Your task to perform on an android device: toggle airplane mode Image 0: 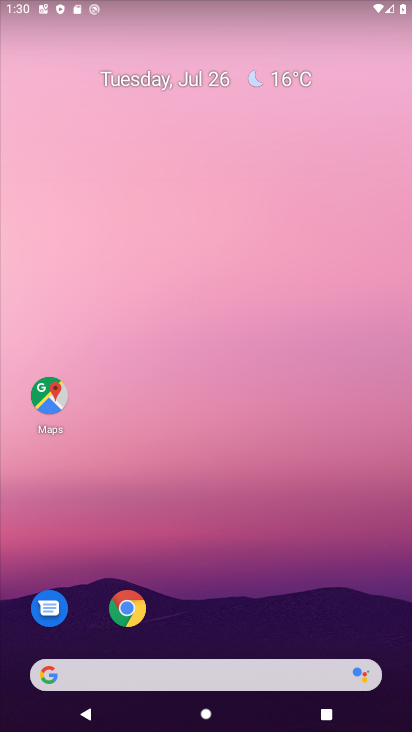
Step 0: drag from (198, 641) to (199, 212)
Your task to perform on an android device: toggle airplane mode Image 1: 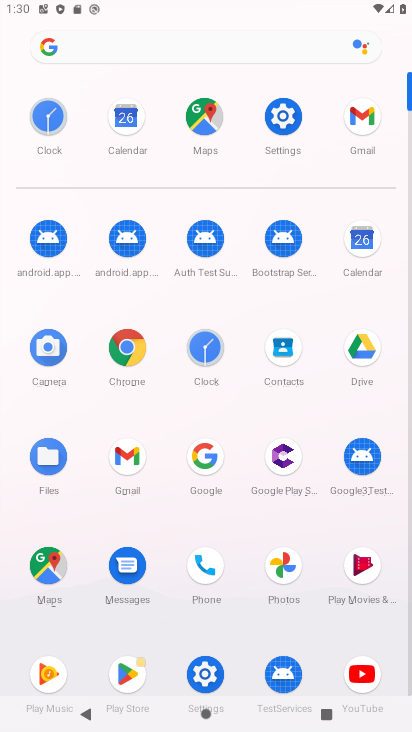
Step 1: click (284, 132)
Your task to perform on an android device: toggle airplane mode Image 2: 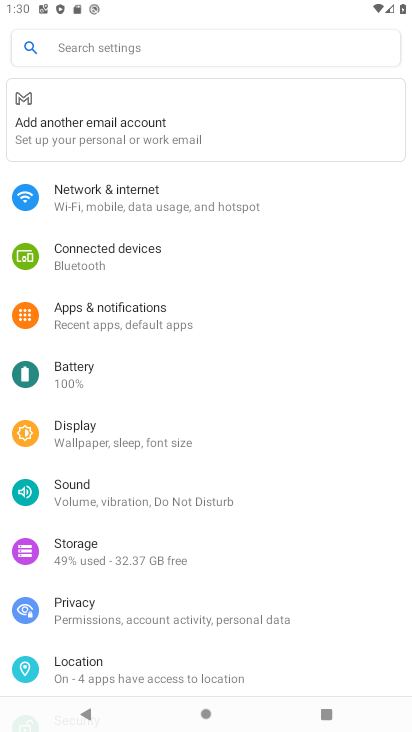
Step 2: click (255, 230)
Your task to perform on an android device: toggle airplane mode Image 3: 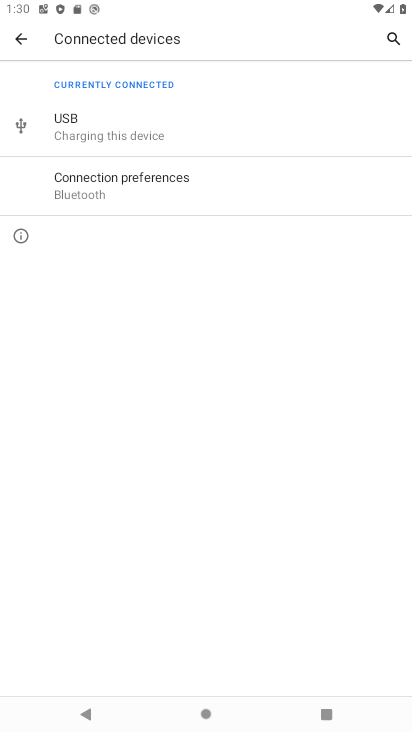
Step 3: task complete